Your task to perform on an android device: turn off priority inbox in the gmail app Image 0: 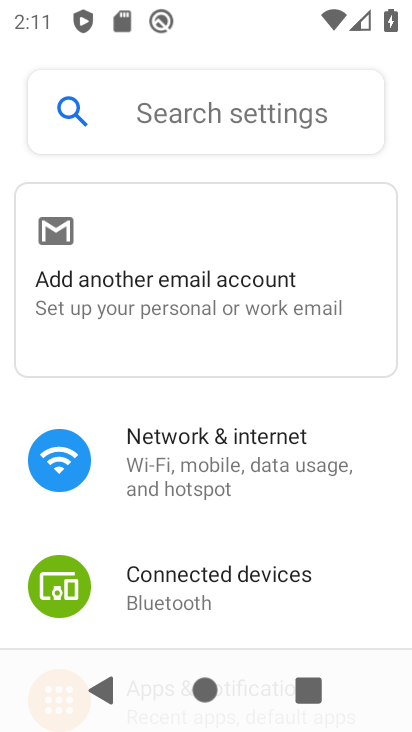
Step 0: press home button
Your task to perform on an android device: turn off priority inbox in the gmail app Image 1: 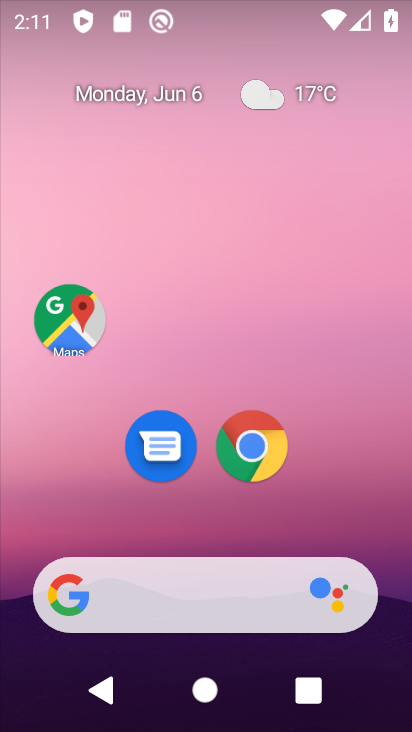
Step 1: drag from (134, 466) to (244, 16)
Your task to perform on an android device: turn off priority inbox in the gmail app Image 2: 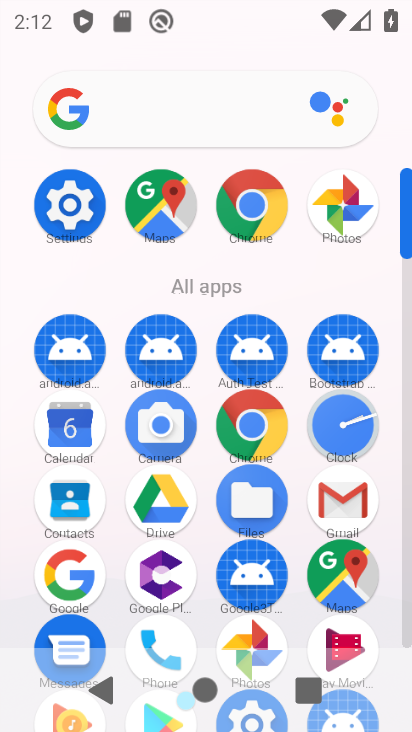
Step 2: click (341, 507)
Your task to perform on an android device: turn off priority inbox in the gmail app Image 3: 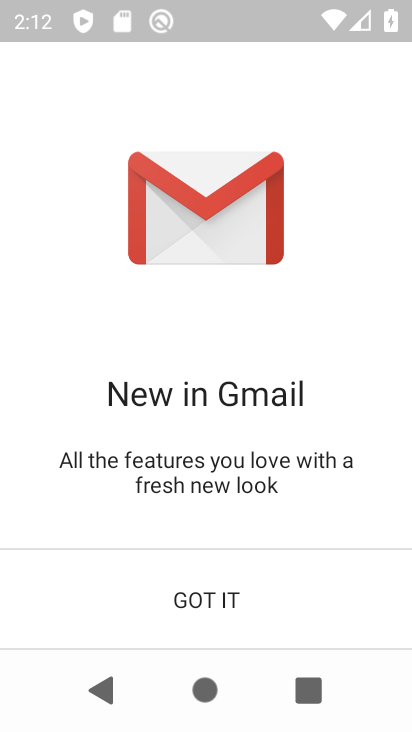
Step 3: click (178, 594)
Your task to perform on an android device: turn off priority inbox in the gmail app Image 4: 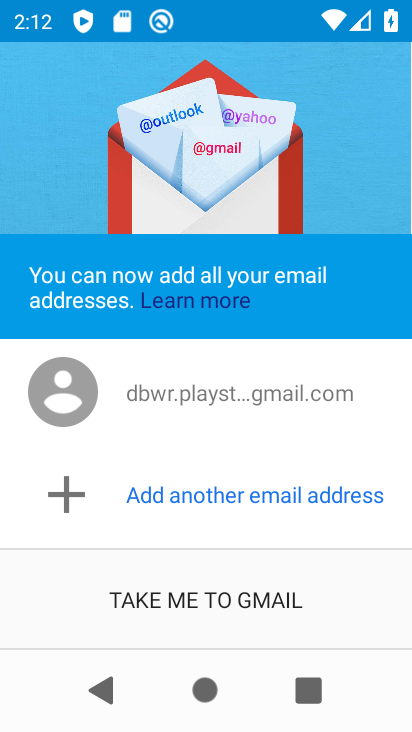
Step 4: click (221, 596)
Your task to perform on an android device: turn off priority inbox in the gmail app Image 5: 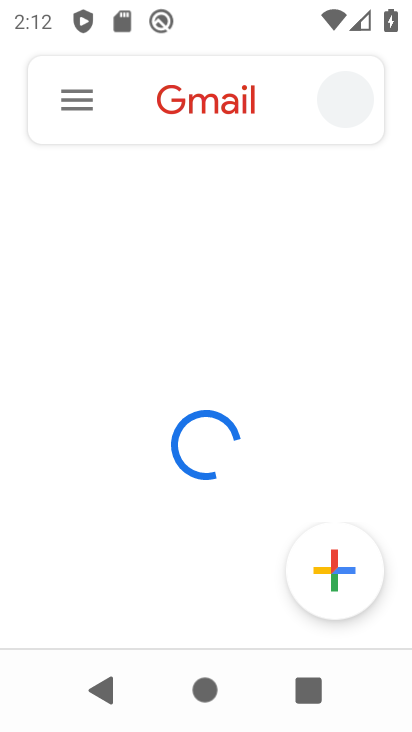
Step 5: click (76, 100)
Your task to perform on an android device: turn off priority inbox in the gmail app Image 6: 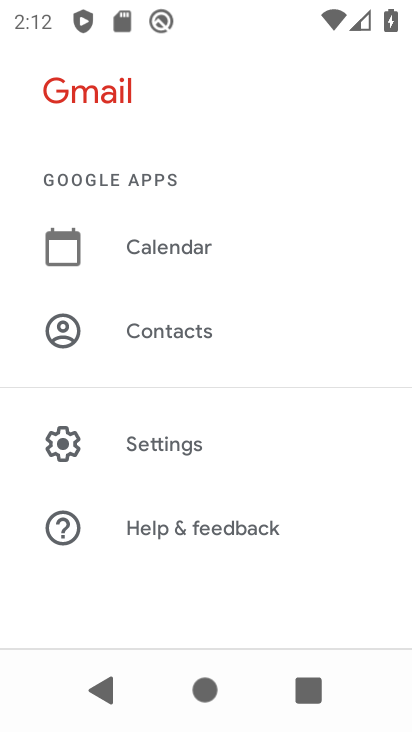
Step 6: click (177, 434)
Your task to perform on an android device: turn off priority inbox in the gmail app Image 7: 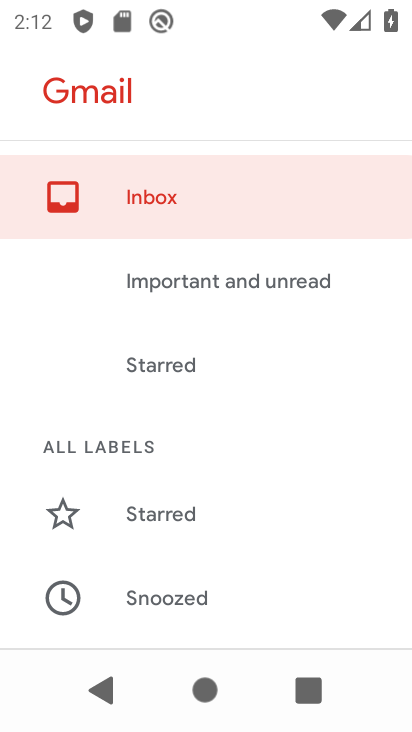
Step 7: drag from (171, 564) to (250, 60)
Your task to perform on an android device: turn off priority inbox in the gmail app Image 8: 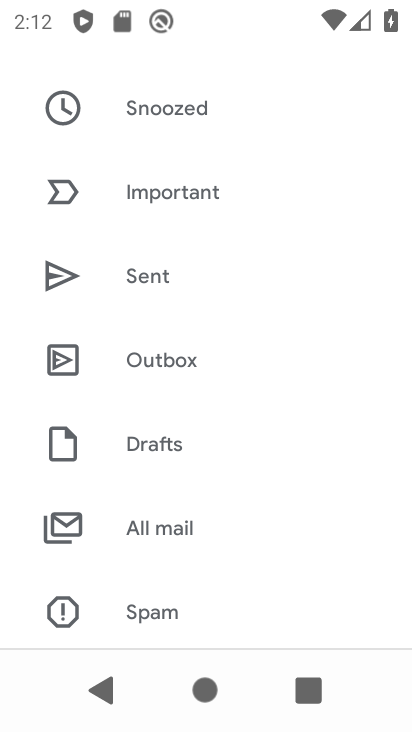
Step 8: drag from (154, 545) to (270, 13)
Your task to perform on an android device: turn off priority inbox in the gmail app Image 9: 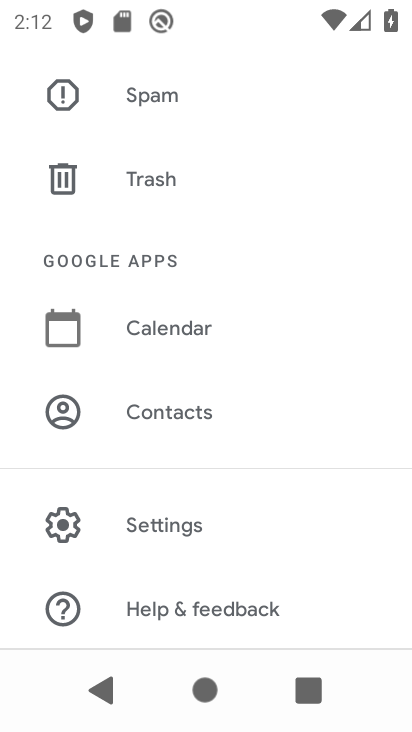
Step 9: click (138, 506)
Your task to perform on an android device: turn off priority inbox in the gmail app Image 10: 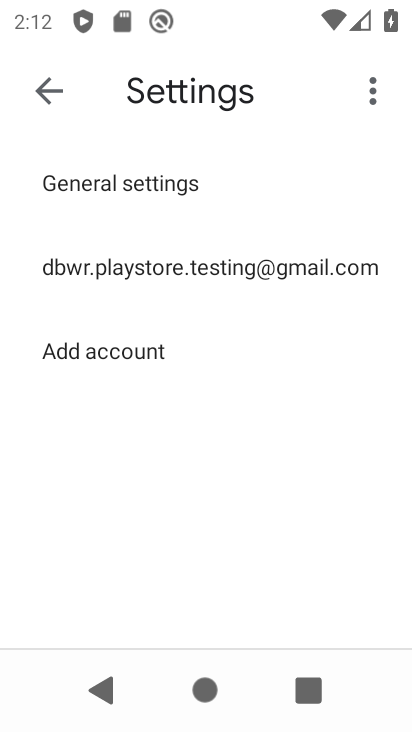
Step 10: click (168, 244)
Your task to perform on an android device: turn off priority inbox in the gmail app Image 11: 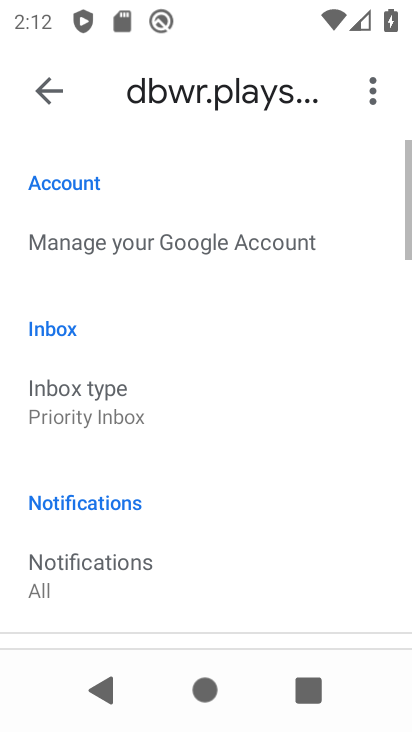
Step 11: click (101, 410)
Your task to perform on an android device: turn off priority inbox in the gmail app Image 12: 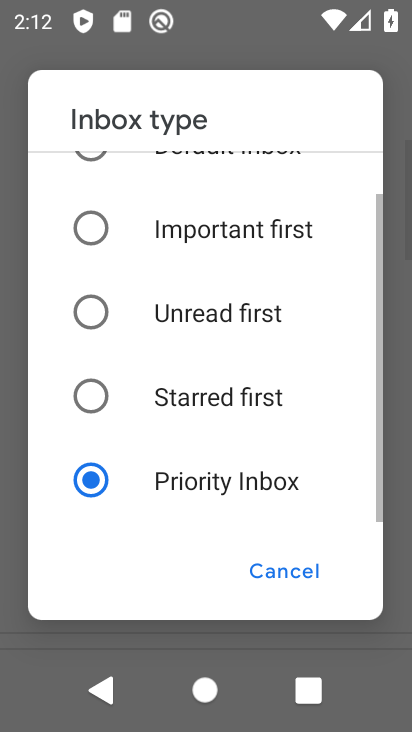
Step 12: drag from (194, 195) to (194, 534)
Your task to perform on an android device: turn off priority inbox in the gmail app Image 13: 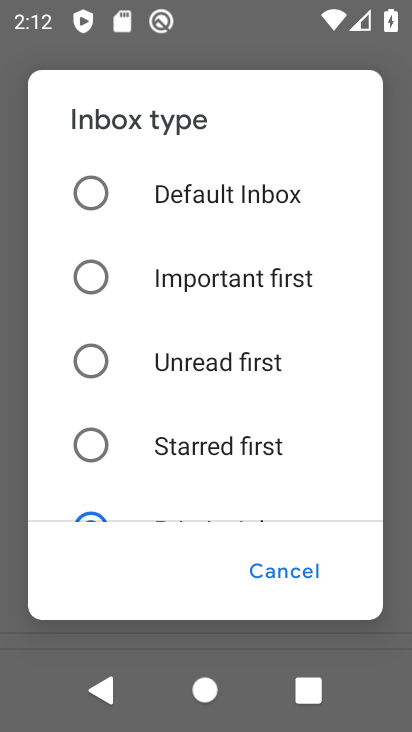
Step 13: click (79, 185)
Your task to perform on an android device: turn off priority inbox in the gmail app Image 14: 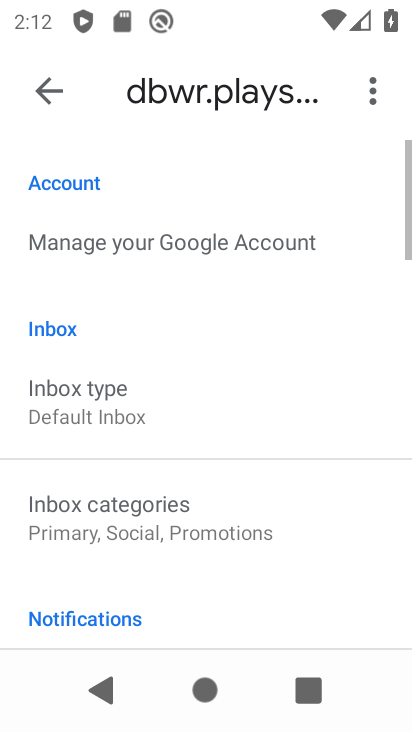
Step 14: task complete